Your task to perform on an android device: turn notification dots off Image 0: 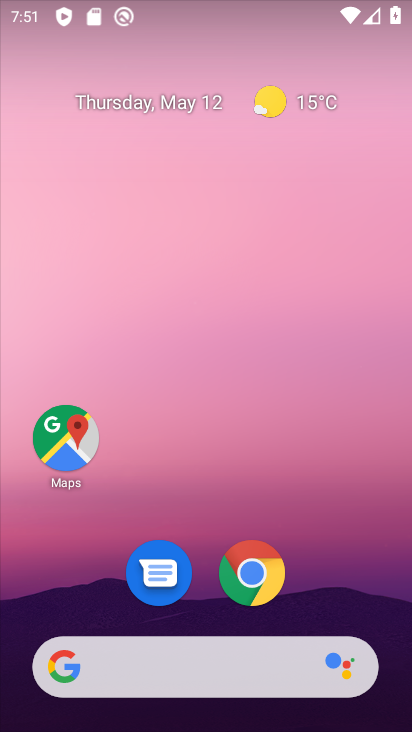
Step 0: drag from (314, 556) to (207, 83)
Your task to perform on an android device: turn notification dots off Image 1: 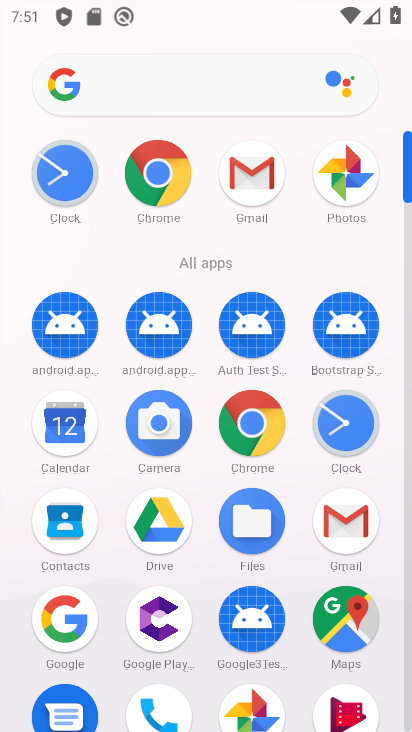
Step 1: drag from (213, 660) to (156, 290)
Your task to perform on an android device: turn notification dots off Image 2: 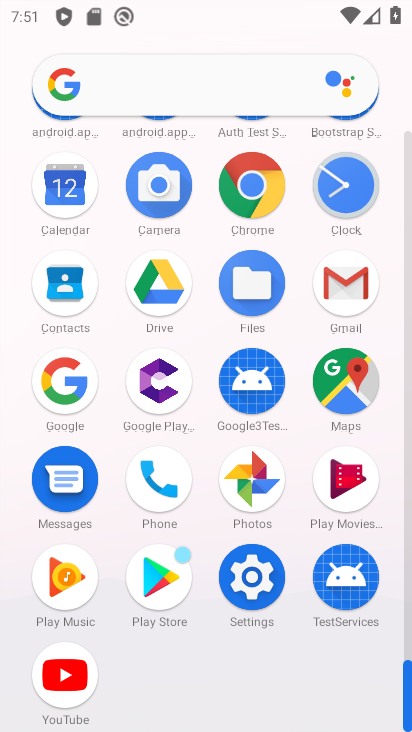
Step 2: click (244, 571)
Your task to perform on an android device: turn notification dots off Image 3: 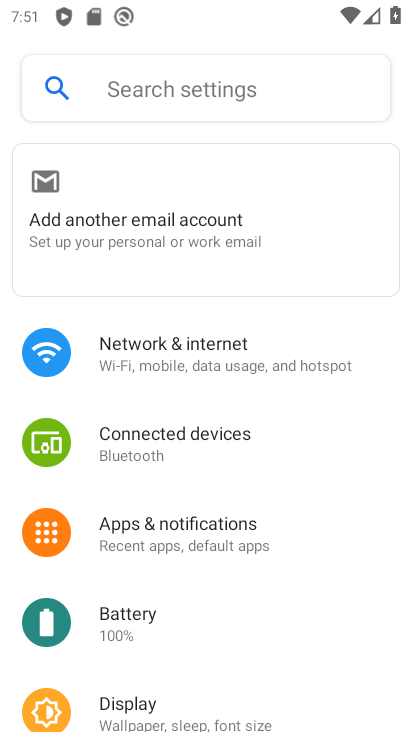
Step 3: click (199, 520)
Your task to perform on an android device: turn notification dots off Image 4: 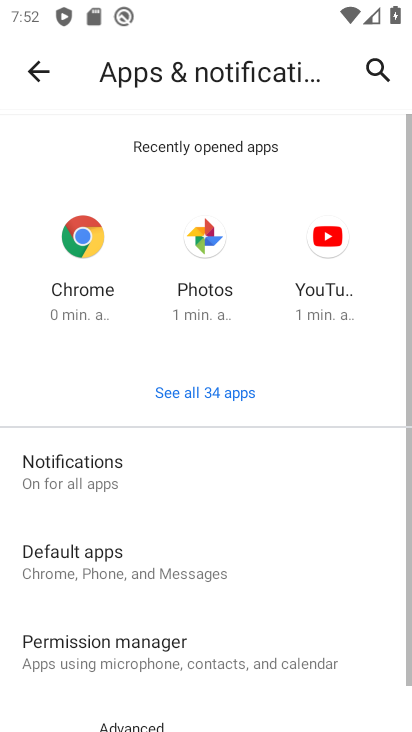
Step 4: click (60, 455)
Your task to perform on an android device: turn notification dots off Image 5: 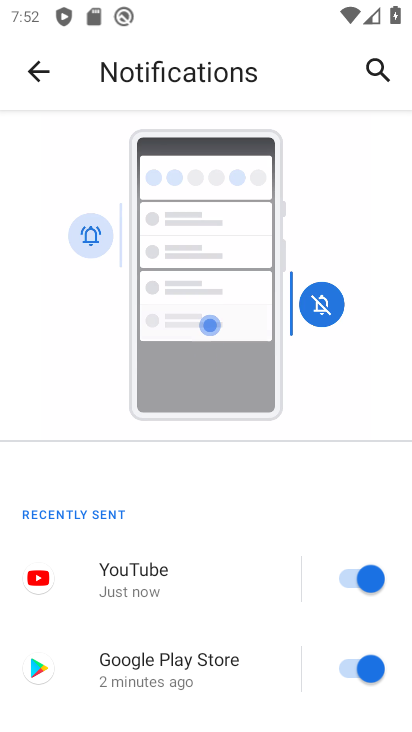
Step 5: drag from (301, 539) to (233, 119)
Your task to perform on an android device: turn notification dots off Image 6: 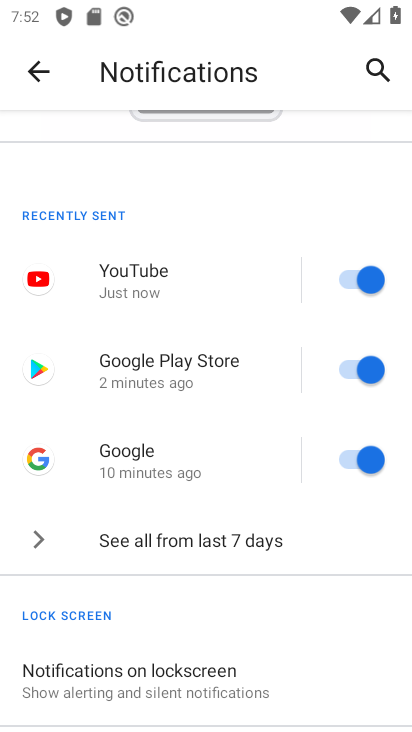
Step 6: drag from (262, 599) to (238, 225)
Your task to perform on an android device: turn notification dots off Image 7: 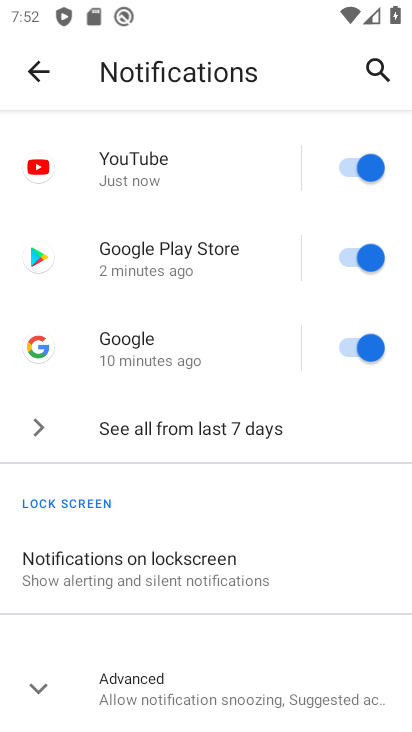
Step 7: click (46, 687)
Your task to perform on an android device: turn notification dots off Image 8: 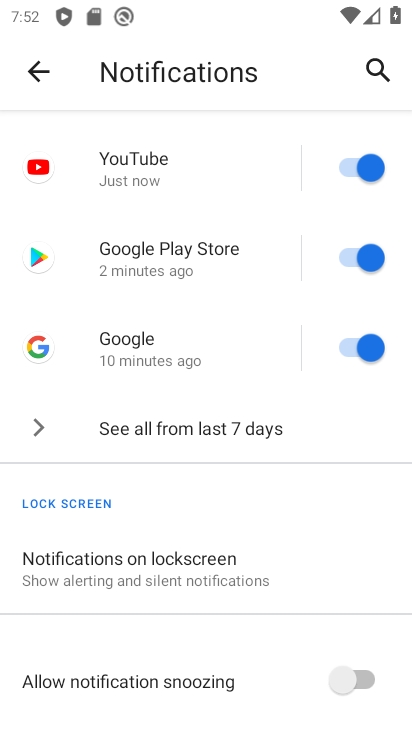
Step 8: drag from (167, 623) to (146, 380)
Your task to perform on an android device: turn notification dots off Image 9: 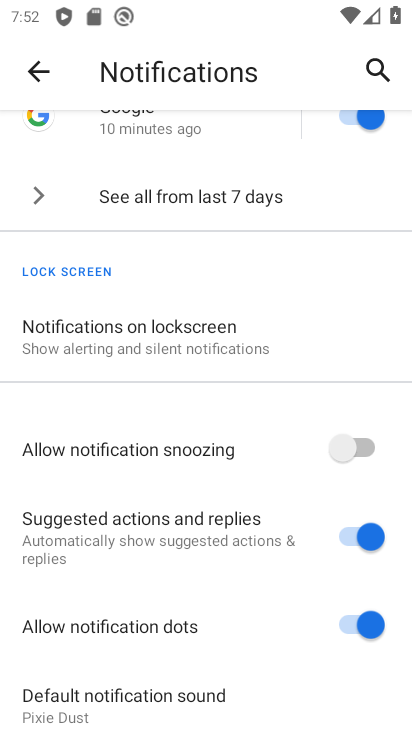
Step 9: click (362, 614)
Your task to perform on an android device: turn notification dots off Image 10: 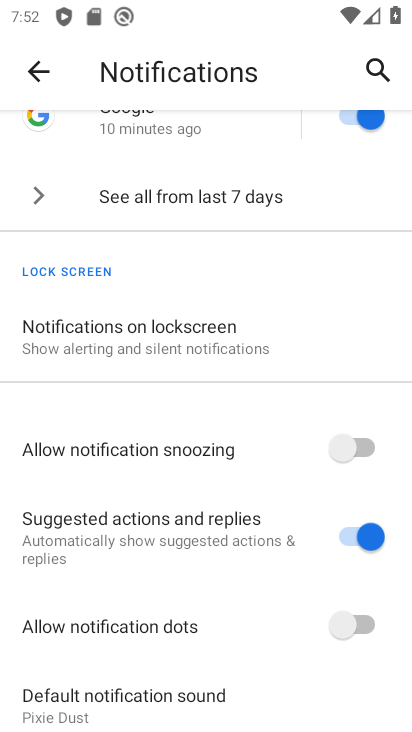
Step 10: task complete